Your task to perform on an android device: open wifi settings Image 0: 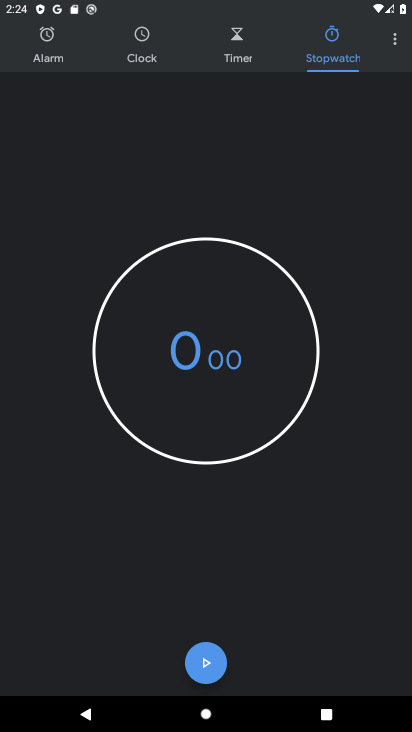
Step 0: drag from (164, 3) to (236, 678)
Your task to perform on an android device: open wifi settings Image 1: 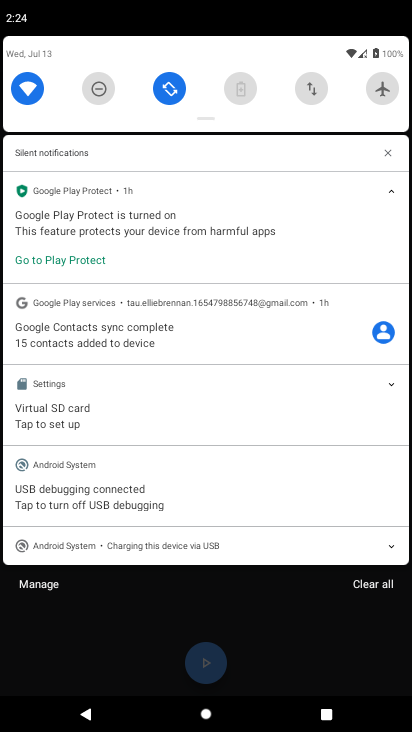
Step 1: click (38, 82)
Your task to perform on an android device: open wifi settings Image 2: 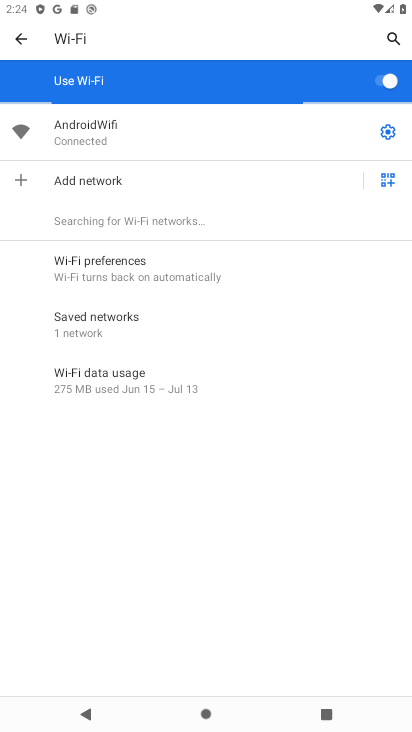
Step 2: task complete